Your task to perform on an android device: delete a single message in the gmail app Image 0: 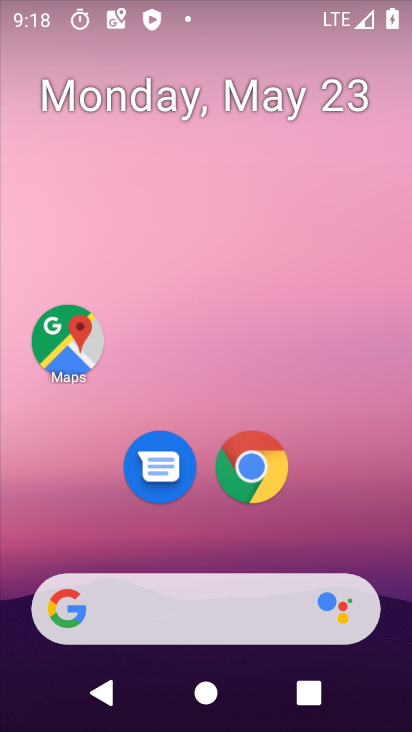
Step 0: drag from (302, 529) to (249, 76)
Your task to perform on an android device: delete a single message in the gmail app Image 1: 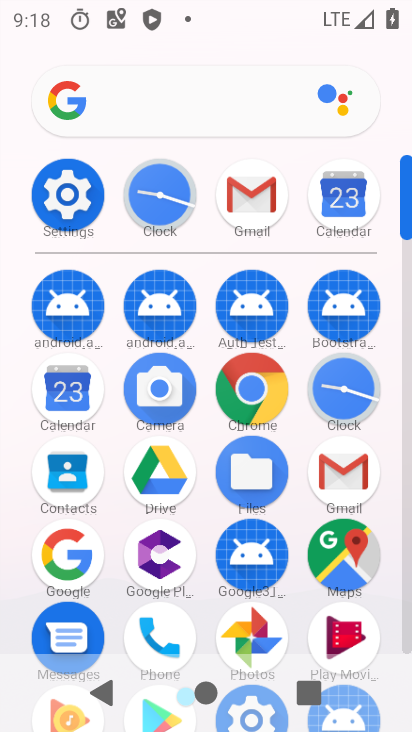
Step 1: click (337, 453)
Your task to perform on an android device: delete a single message in the gmail app Image 2: 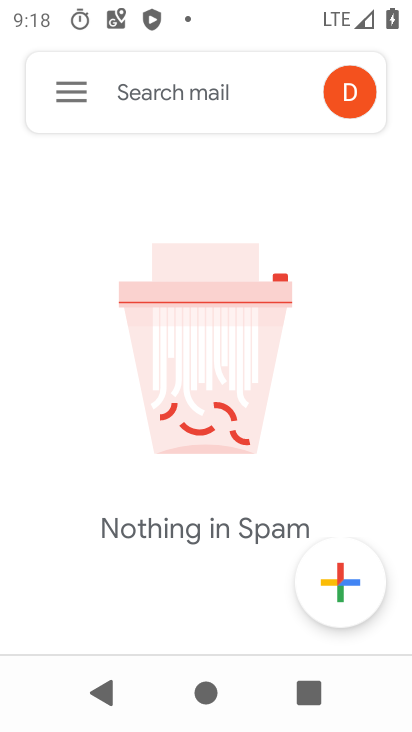
Step 2: click (47, 94)
Your task to perform on an android device: delete a single message in the gmail app Image 3: 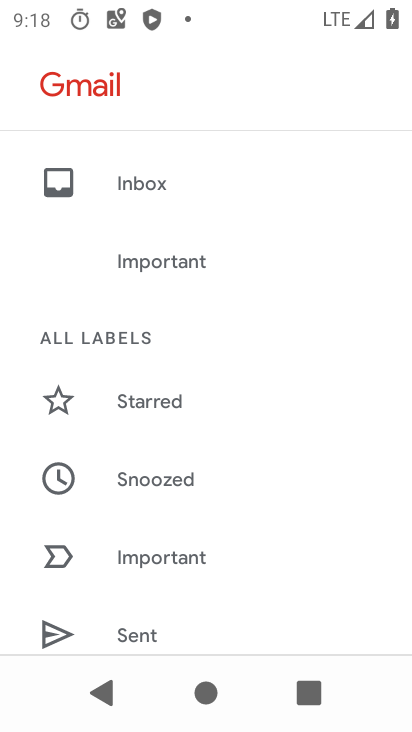
Step 3: click (180, 166)
Your task to perform on an android device: delete a single message in the gmail app Image 4: 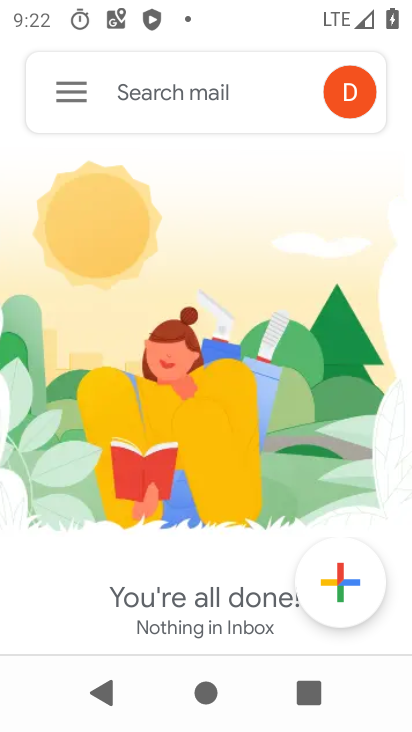
Step 4: task complete